Your task to perform on an android device: Show me the alarms in the clock app Image 0: 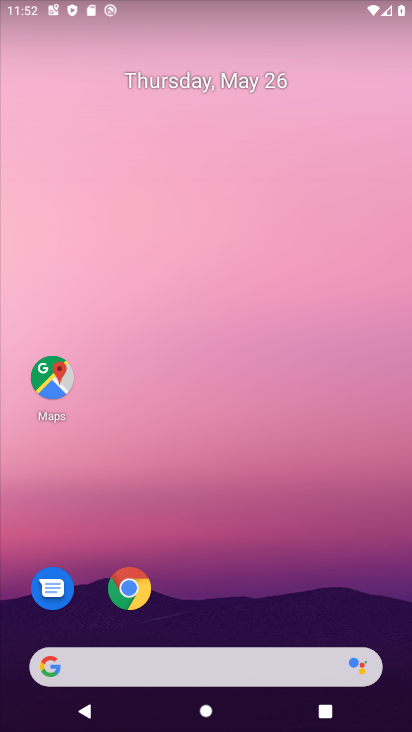
Step 0: drag from (228, 614) to (224, 66)
Your task to perform on an android device: Show me the alarms in the clock app Image 1: 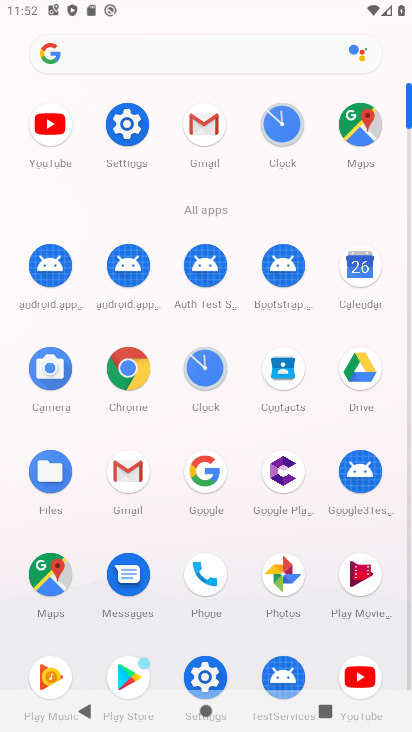
Step 1: click (203, 356)
Your task to perform on an android device: Show me the alarms in the clock app Image 2: 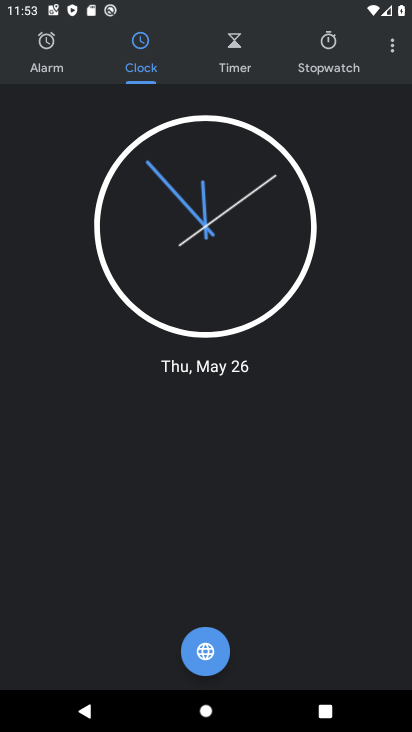
Step 2: click (45, 47)
Your task to perform on an android device: Show me the alarms in the clock app Image 3: 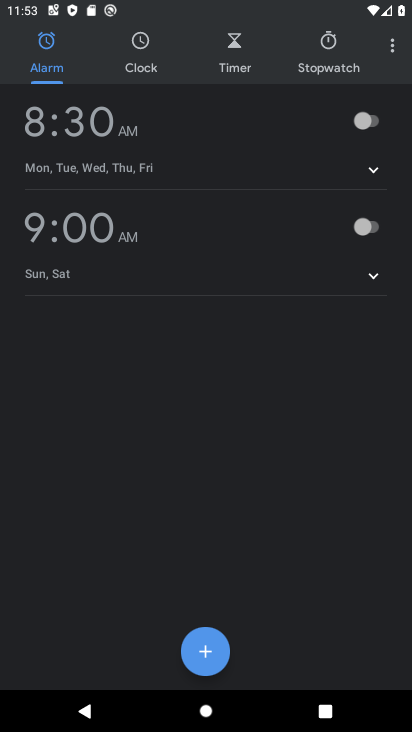
Step 3: task complete